Your task to perform on an android device: What is the recent news? Image 0: 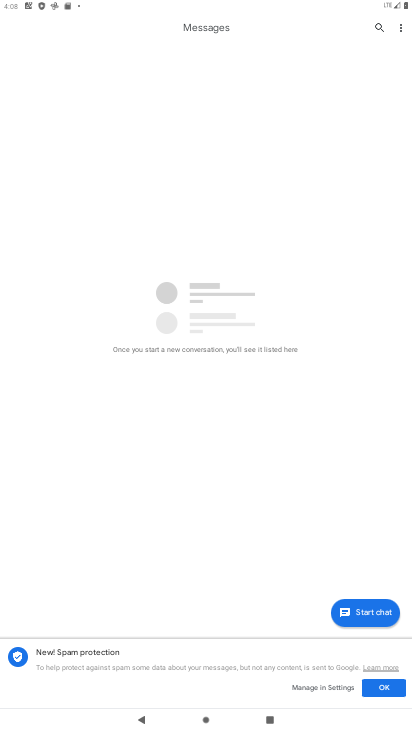
Step 0: press home button
Your task to perform on an android device: What is the recent news? Image 1: 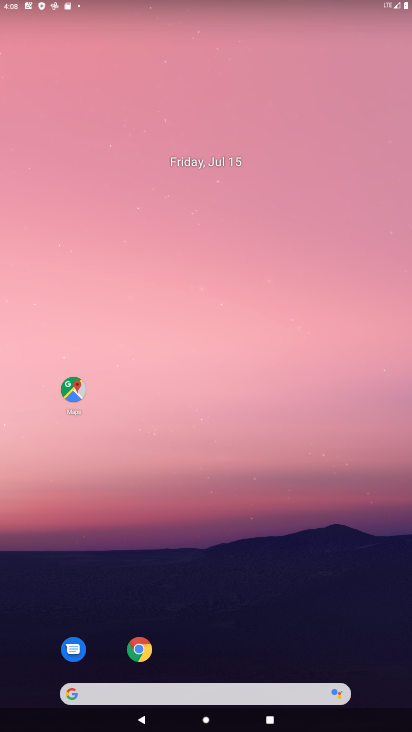
Step 1: drag from (305, 599) to (266, 63)
Your task to perform on an android device: What is the recent news? Image 2: 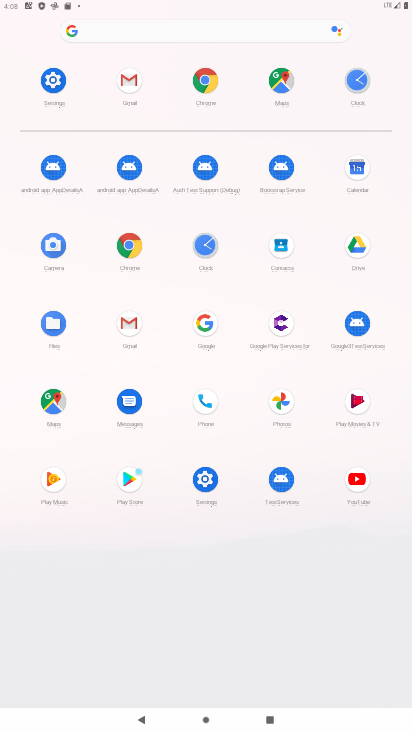
Step 2: click (206, 81)
Your task to perform on an android device: What is the recent news? Image 3: 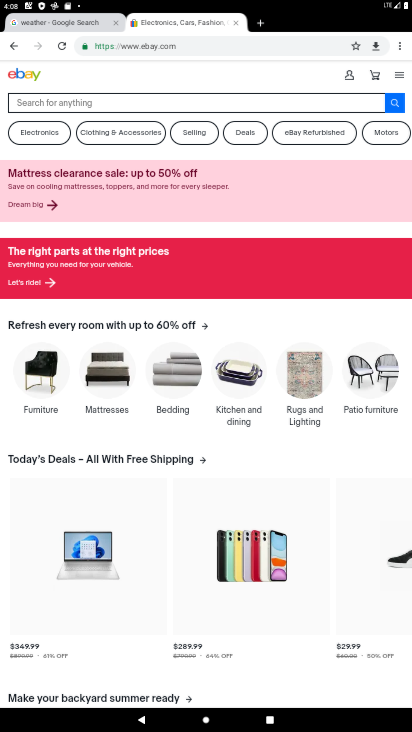
Step 3: click (225, 42)
Your task to perform on an android device: What is the recent news? Image 4: 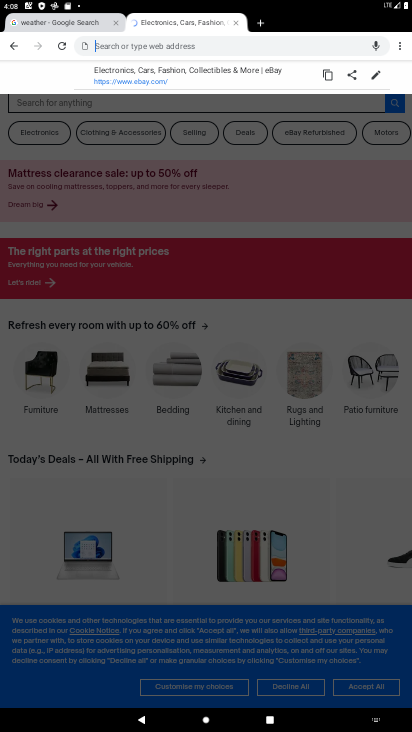
Step 4: type "news"
Your task to perform on an android device: What is the recent news? Image 5: 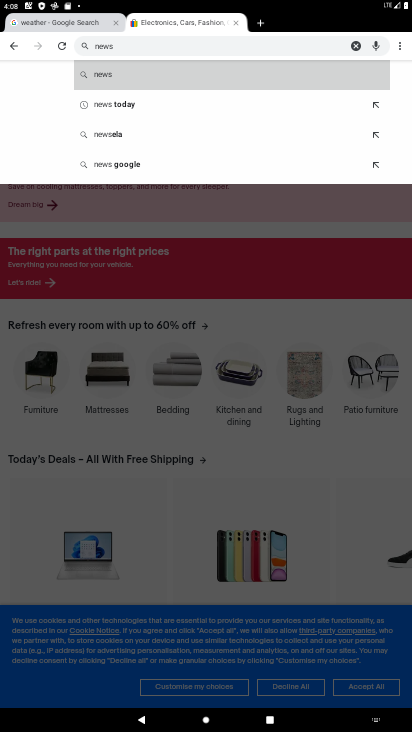
Step 5: click (106, 80)
Your task to perform on an android device: What is the recent news? Image 6: 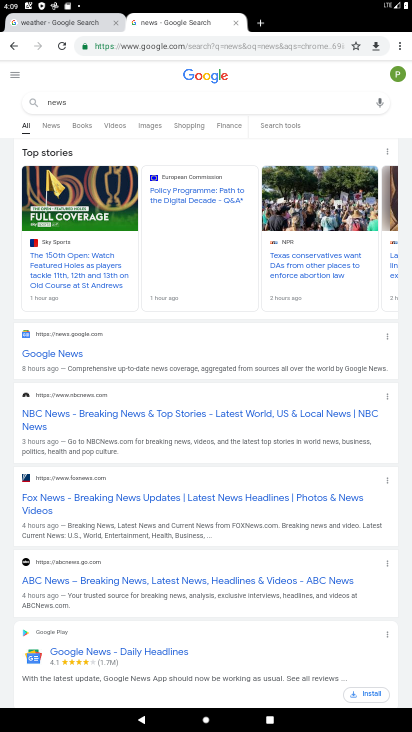
Step 6: click (64, 357)
Your task to perform on an android device: What is the recent news? Image 7: 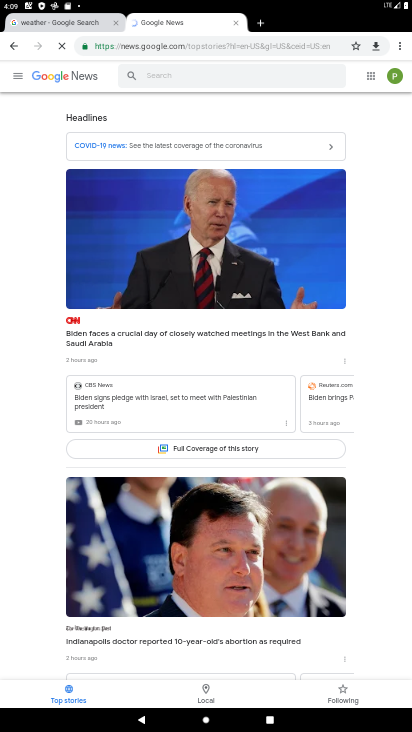
Step 7: task complete